Your task to perform on an android device: Open Amazon Image 0: 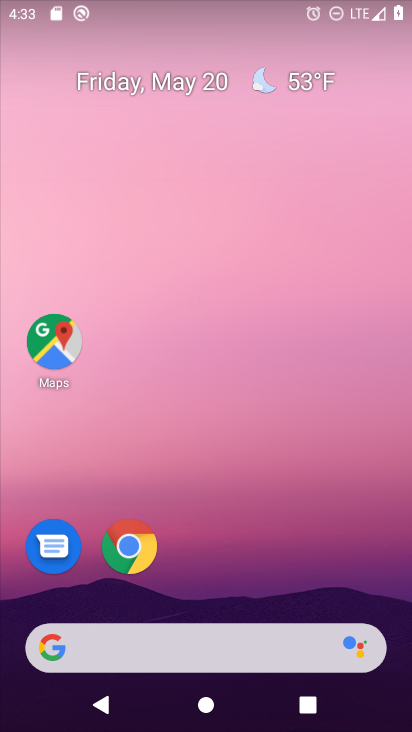
Step 0: click (134, 557)
Your task to perform on an android device: Open Amazon Image 1: 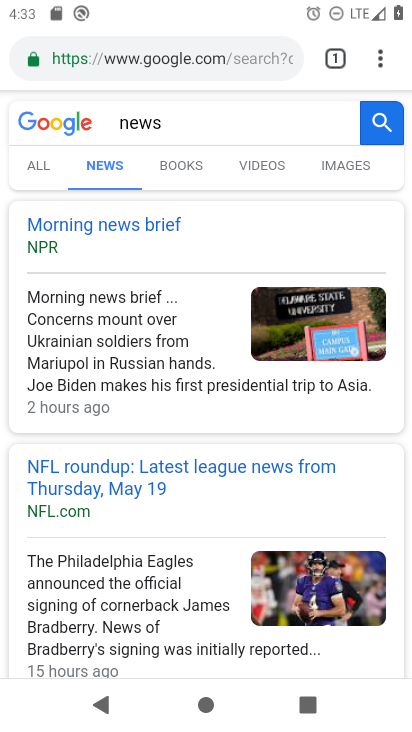
Step 1: click (230, 58)
Your task to perform on an android device: Open Amazon Image 2: 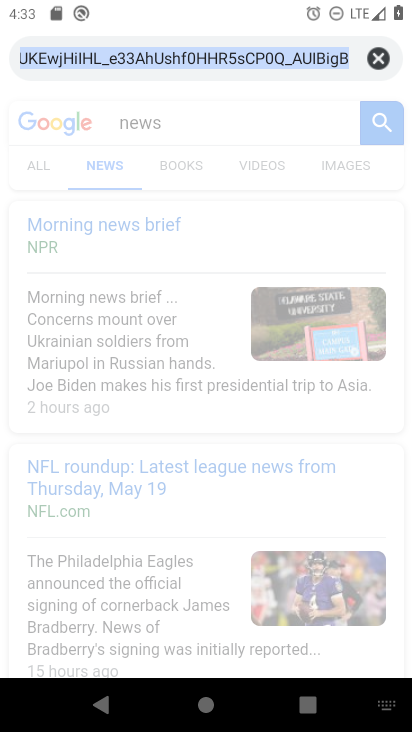
Step 2: click (382, 56)
Your task to perform on an android device: Open Amazon Image 3: 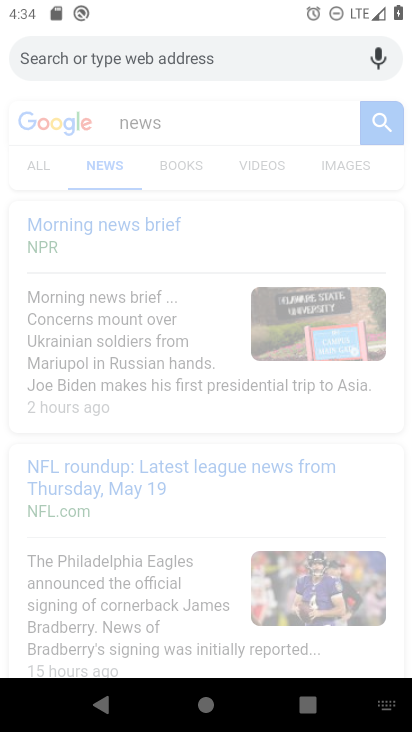
Step 3: type "amazon"
Your task to perform on an android device: Open Amazon Image 4: 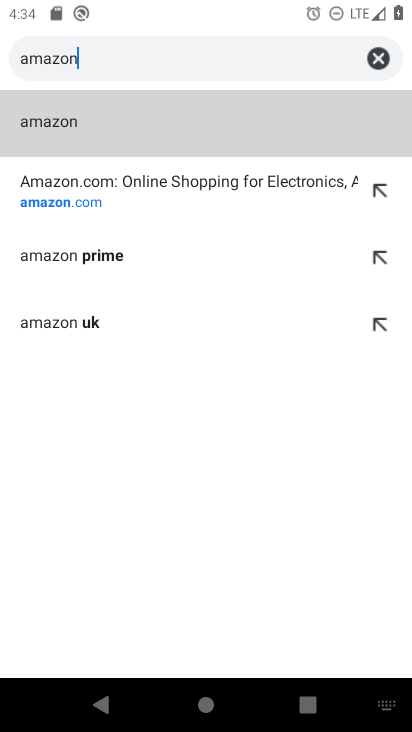
Step 4: click (66, 203)
Your task to perform on an android device: Open Amazon Image 5: 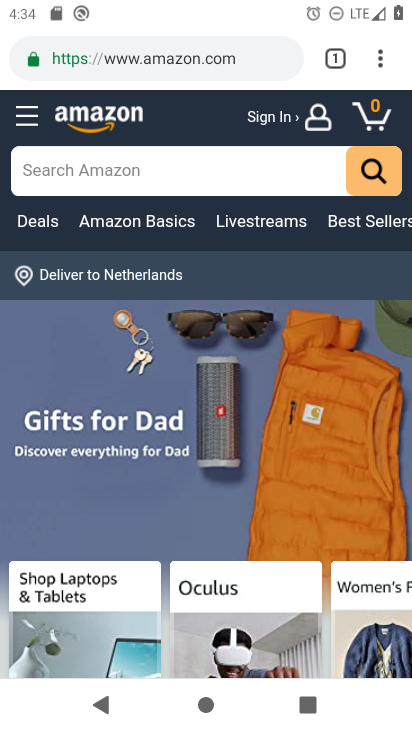
Step 5: task complete